Your task to perform on an android device: check storage Image 0: 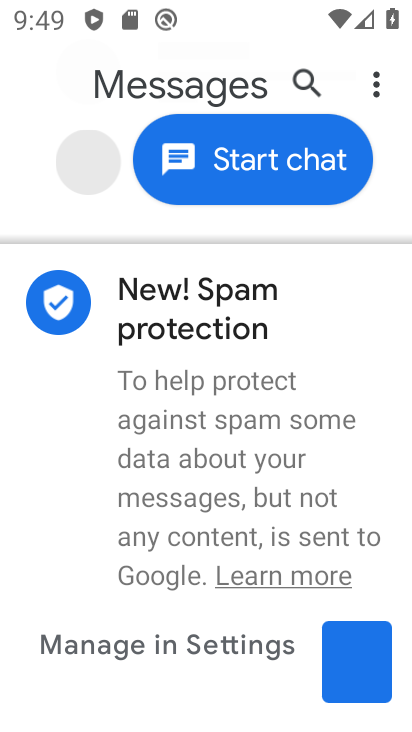
Step 0: press home button
Your task to perform on an android device: check storage Image 1: 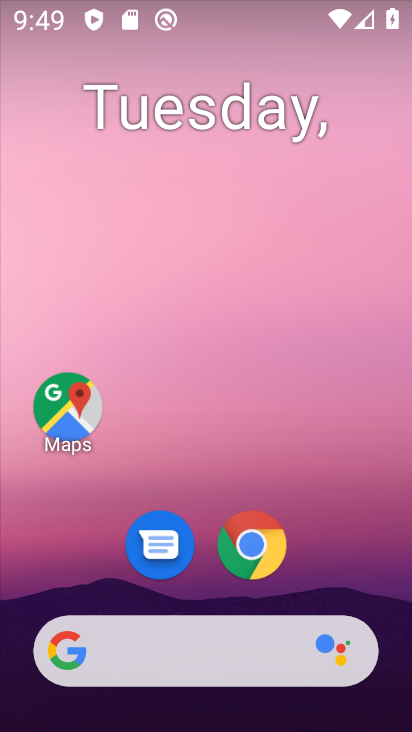
Step 1: drag from (312, 538) to (186, 31)
Your task to perform on an android device: check storage Image 2: 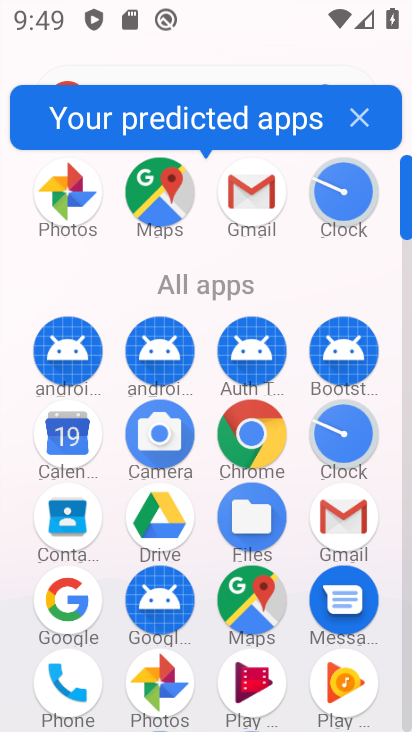
Step 2: drag from (198, 597) to (168, 145)
Your task to perform on an android device: check storage Image 3: 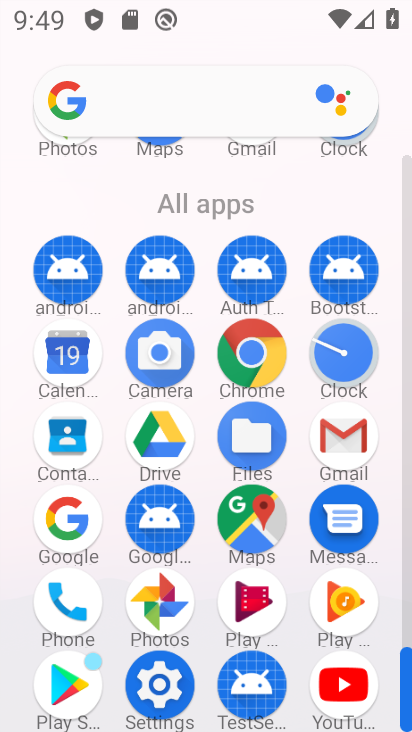
Step 3: click (153, 679)
Your task to perform on an android device: check storage Image 4: 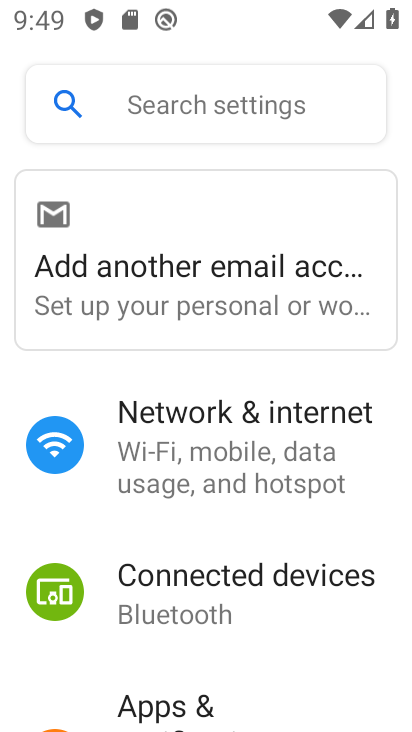
Step 4: drag from (271, 600) to (206, 237)
Your task to perform on an android device: check storage Image 5: 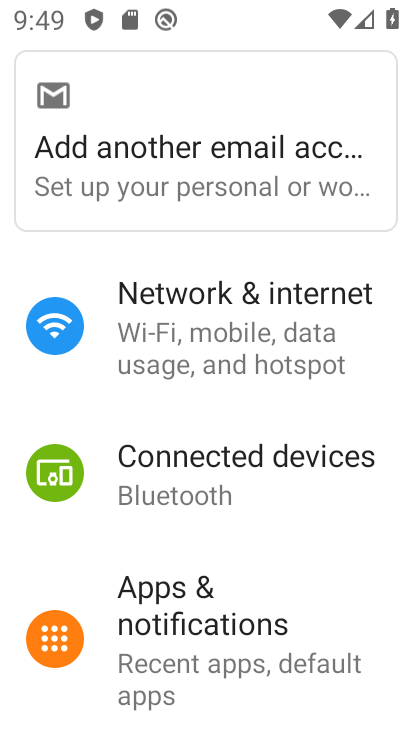
Step 5: drag from (272, 566) to (272, 131)
Your task to perform on an android device: check storage Image 6: 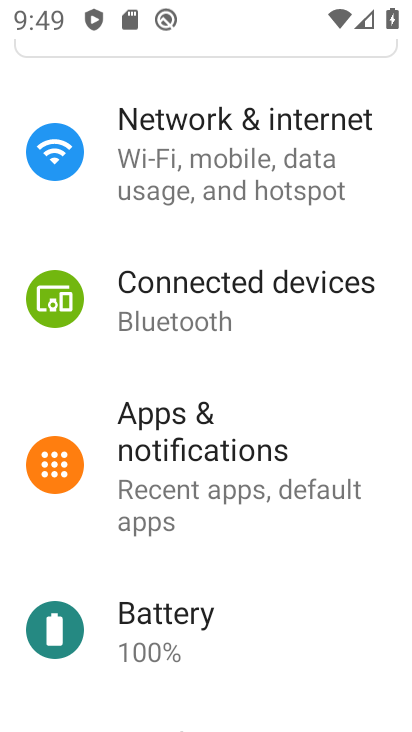
Step 6: drag from (271, 605) to (300, 70)
Your task to perform on an android device: check storage Image 7: 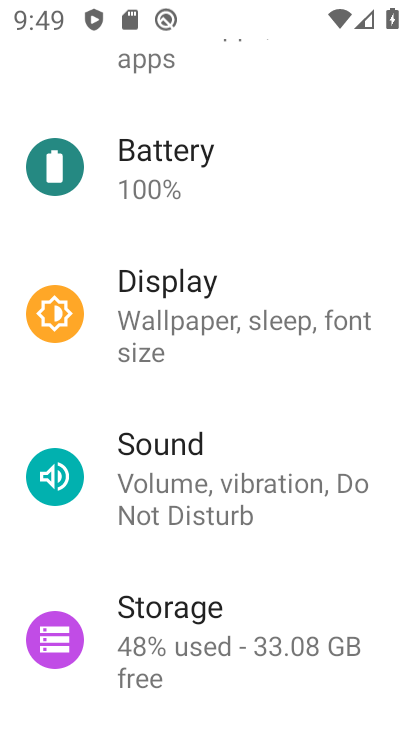
Step 7: click (296, 631)
Your task to perform on an android device: check storage Image 8: 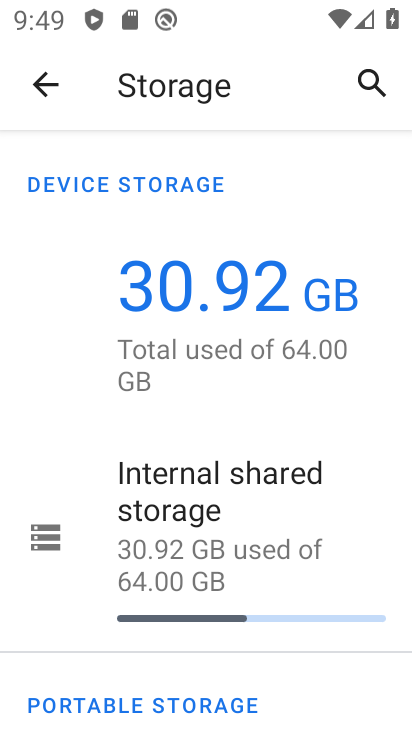
Step 8: task complete